Your task to perform on an android device: What's the weather going to be tomorrow? Image 0: 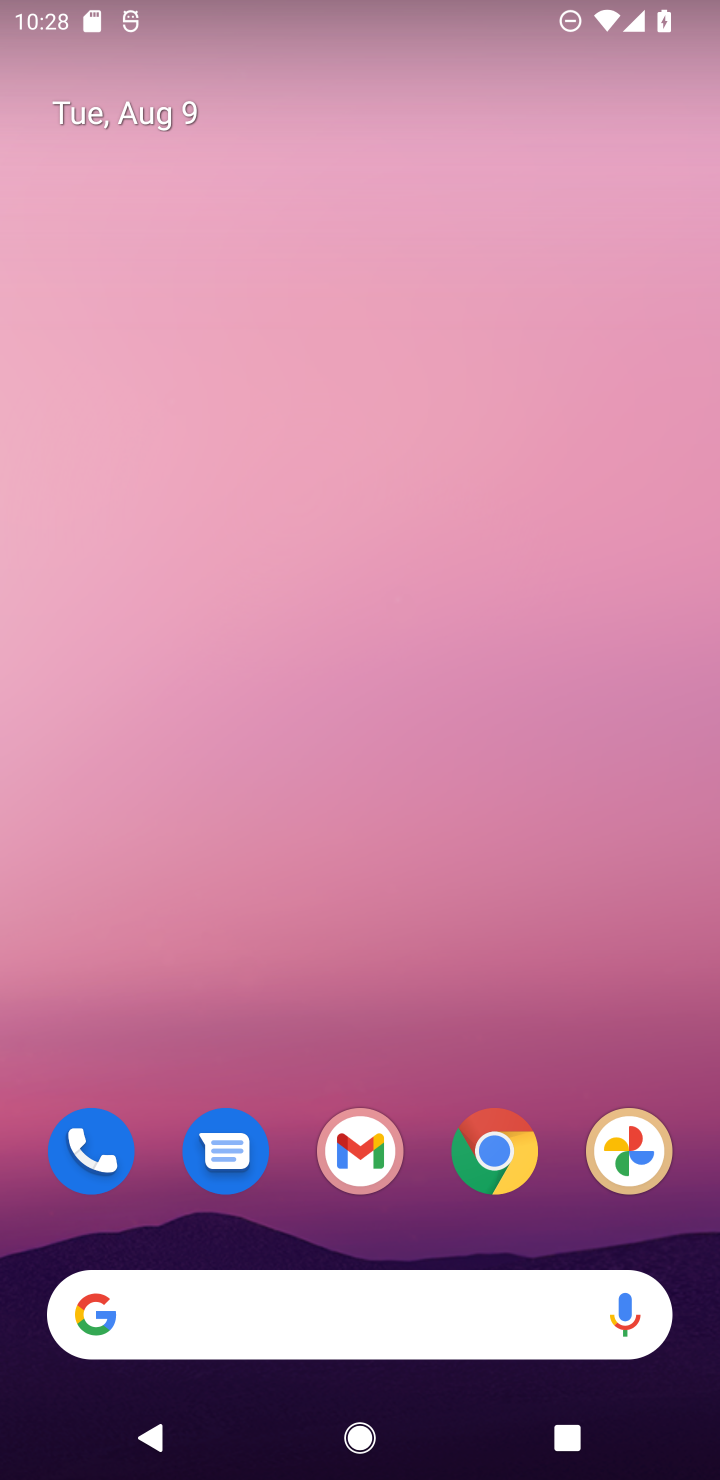
Step 0: click (355, 1313)
Your task to perform on an android device: What's the weather going to be tomorrow? Image 1: 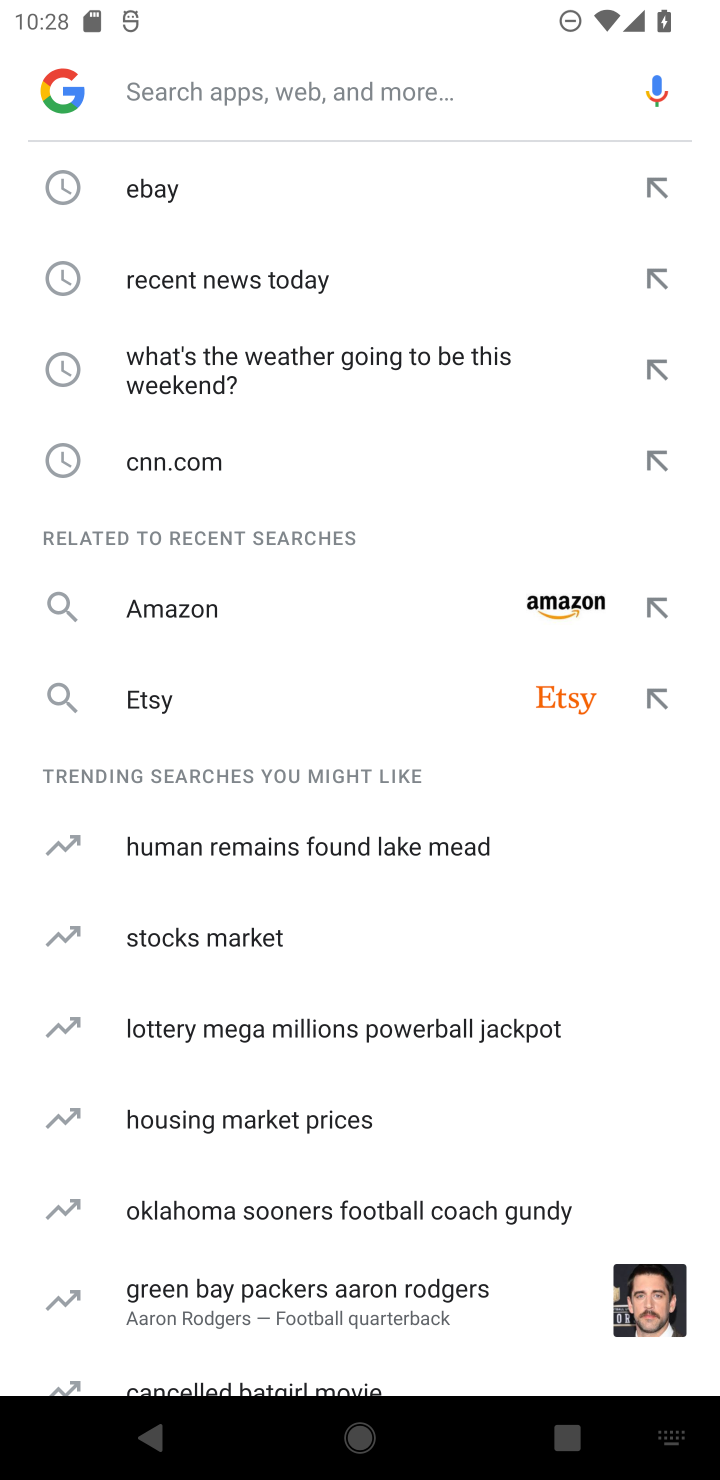
Step 1: click (196, 359)
Your task to perform on an android device: What's the weather going to be tomorrow? Image 2: 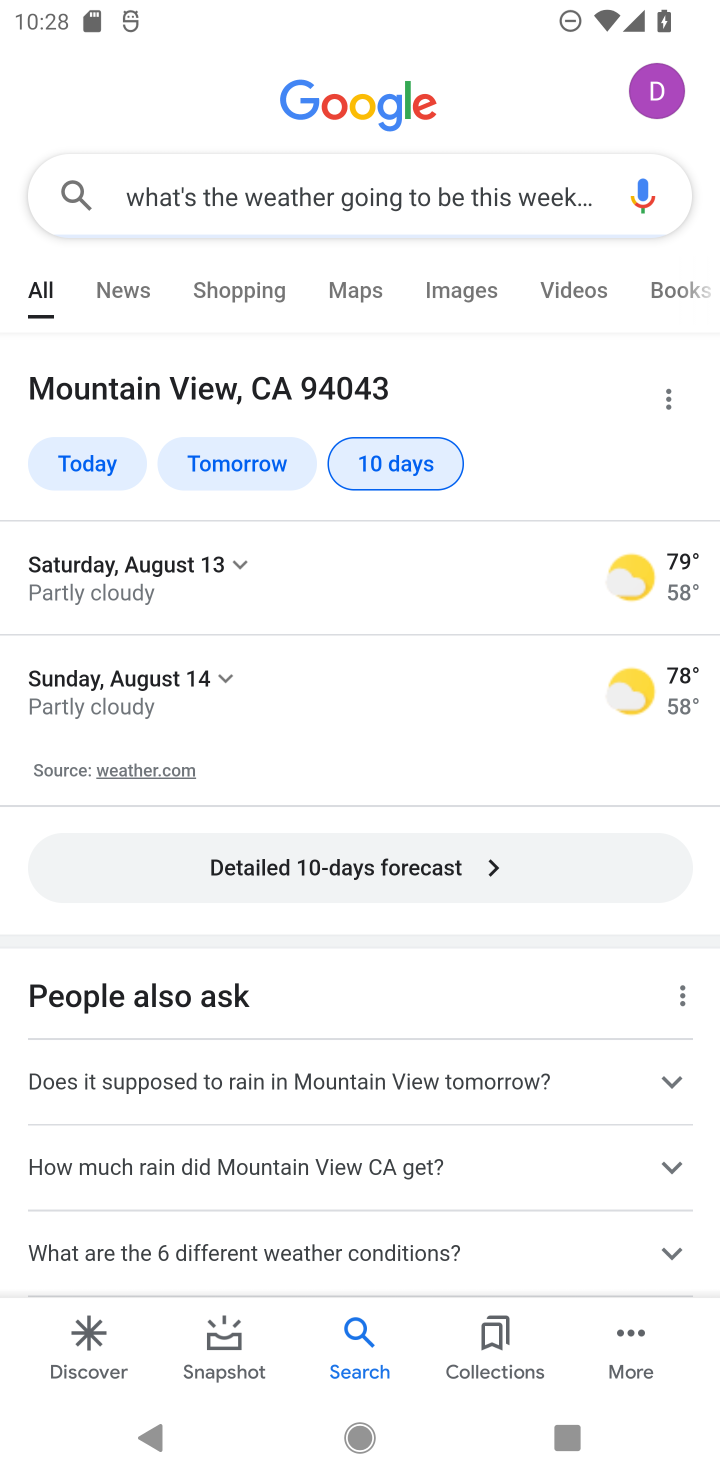
Step 2: click (554, 196)
Your task to perform on an android device: What's the weather going to be tomorrow? Image 3: 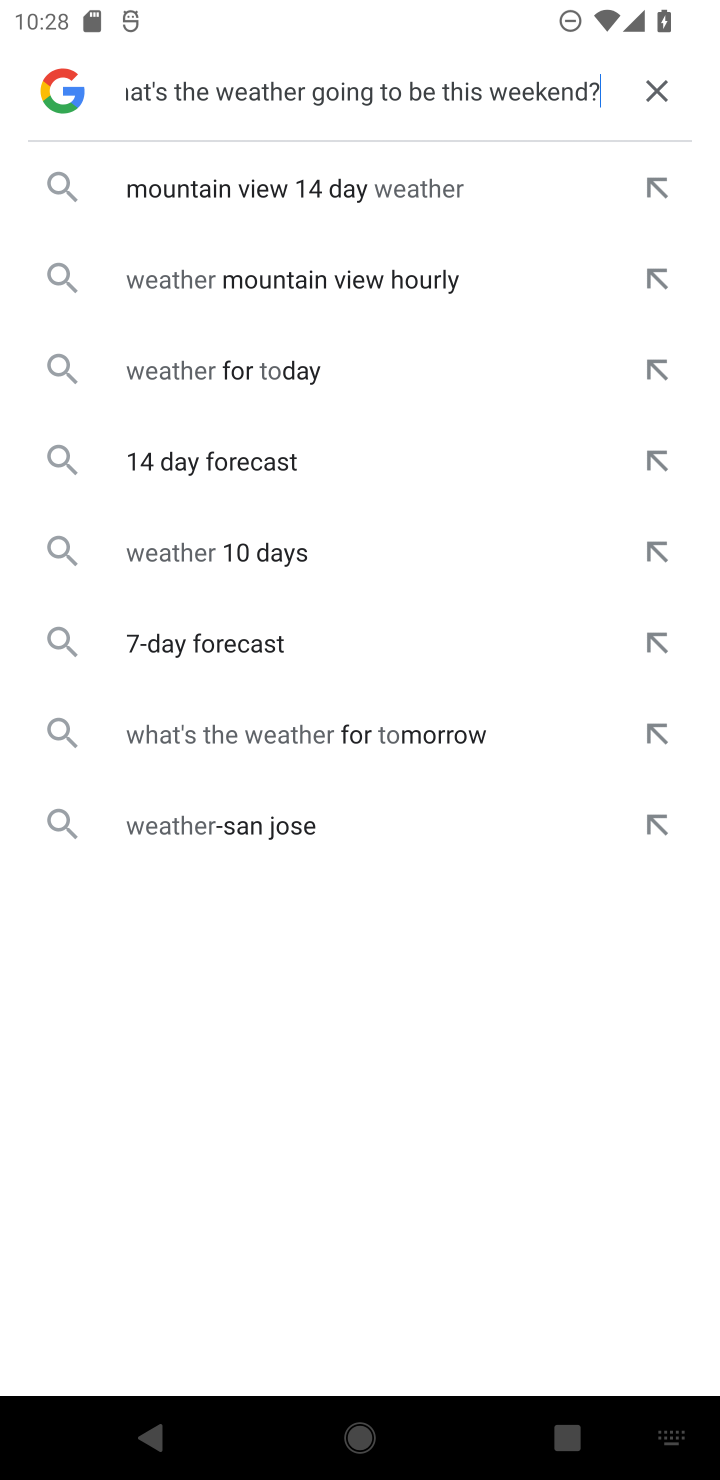
Step 3: click (610, 93)
Your task to perform on an android device: What's the weather going to be tomorrow? Image 4: 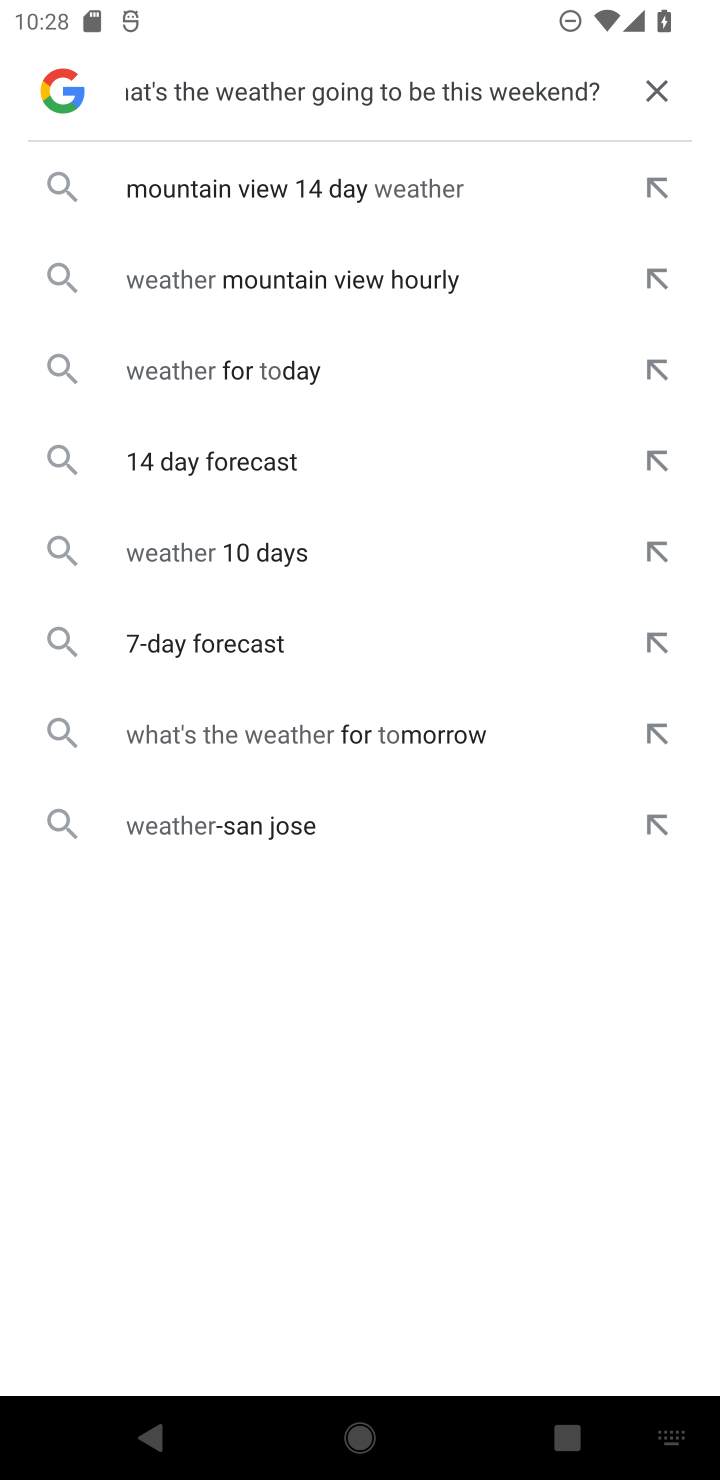
Step 4: drag from (610, 93) to (486, 94)
Your task to perform on an android device: What's the weather going to be tomorrow? Image 5: 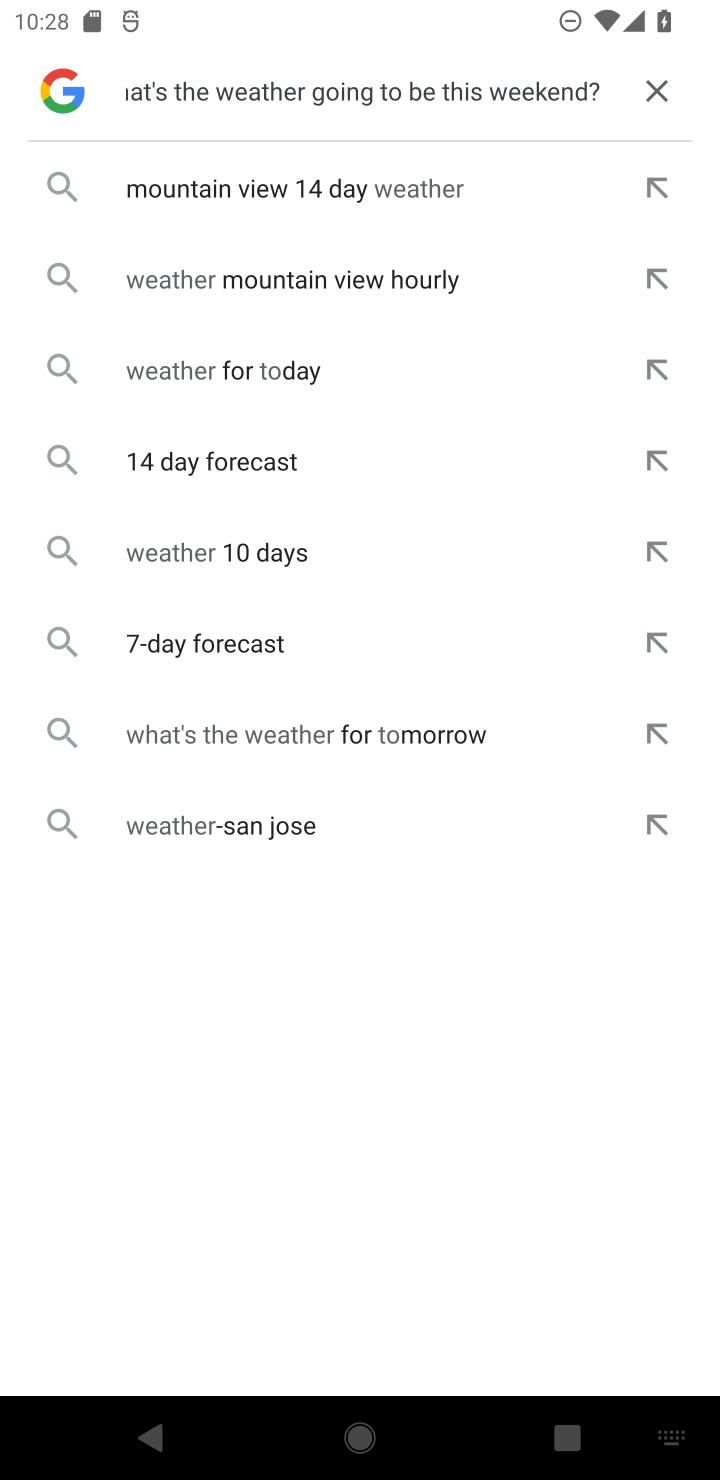
Step 5: click (425, 84)
Your task to perform on an android device: What's the weather going to be tomorrow? Image 6: 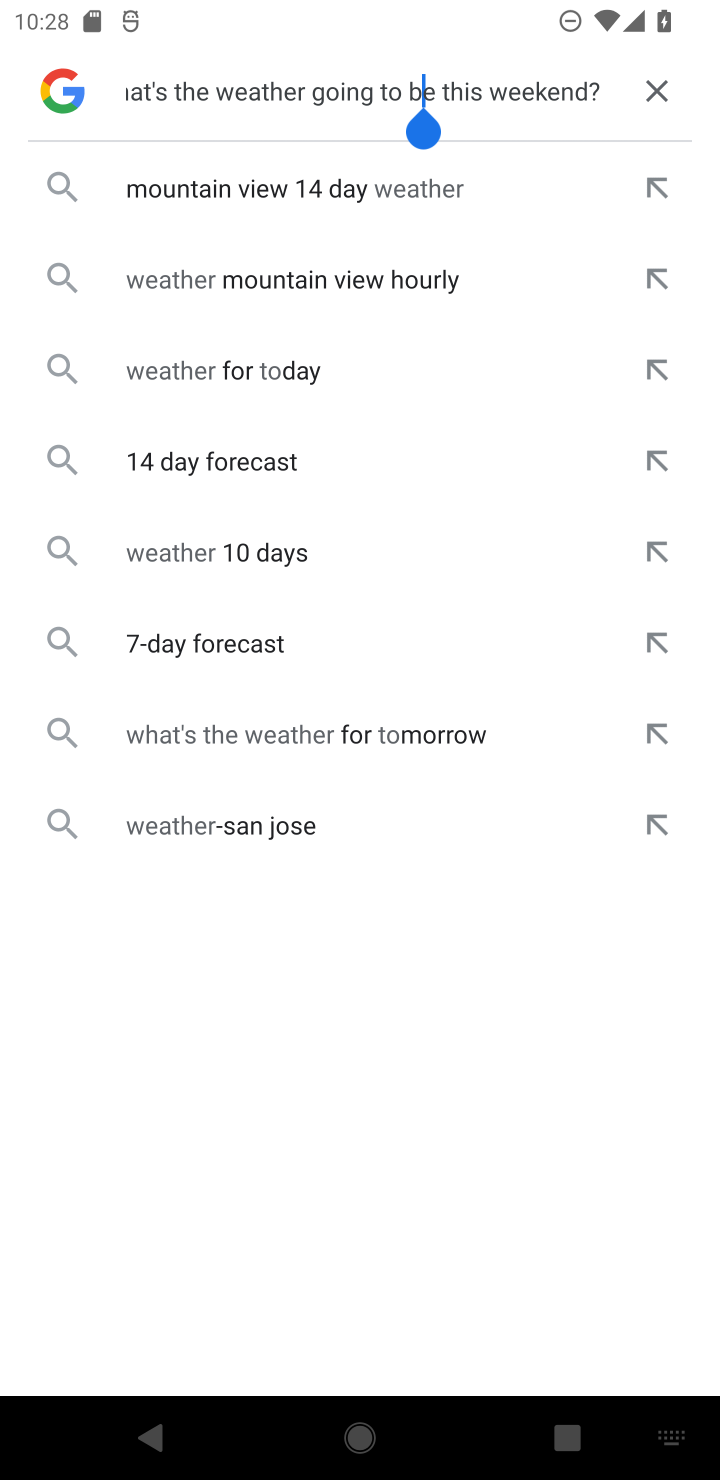
Step 6: click (602, 89)
Your task to perform on an android device: What's the weather going to be tomorrow? Image 7: 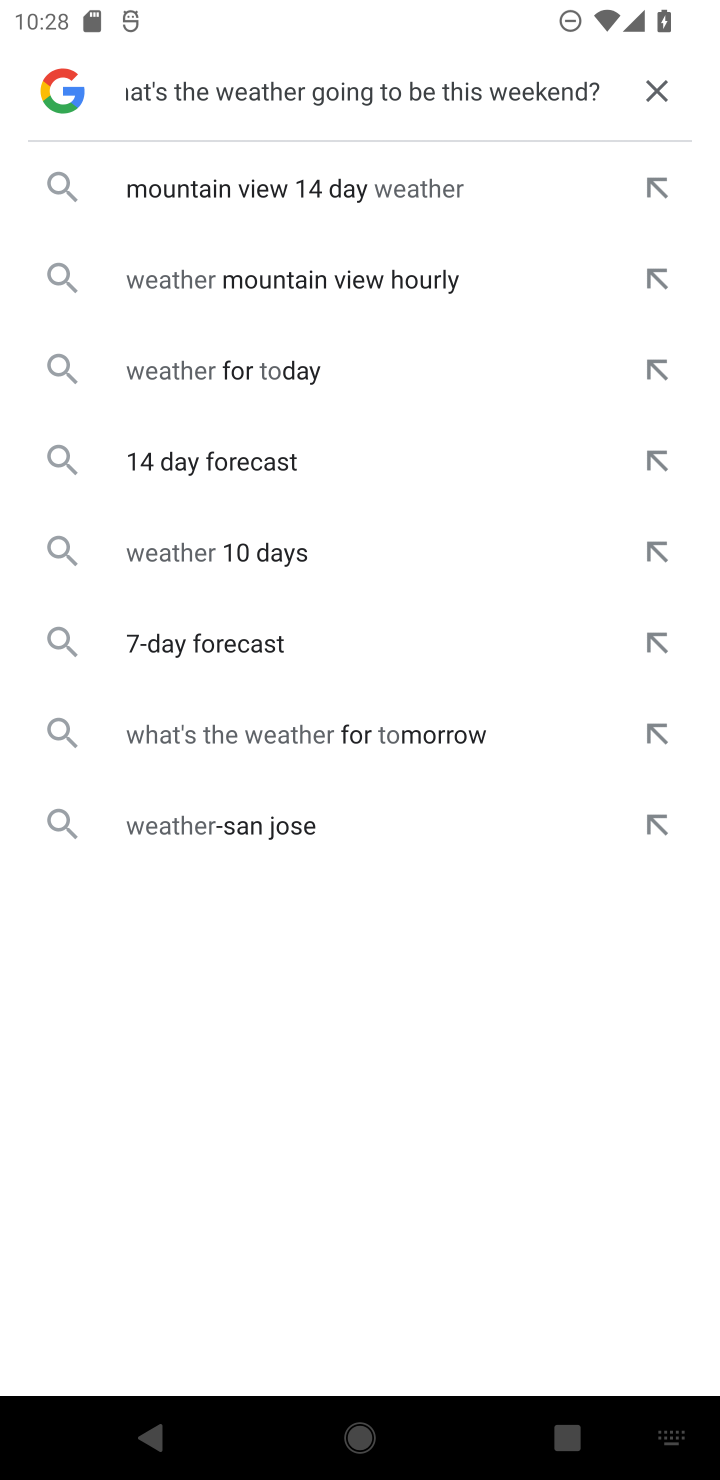
Step 7: click (602, 89)
Your task to perform on an android device: What's the weather going to be tomorrow? Image 8: 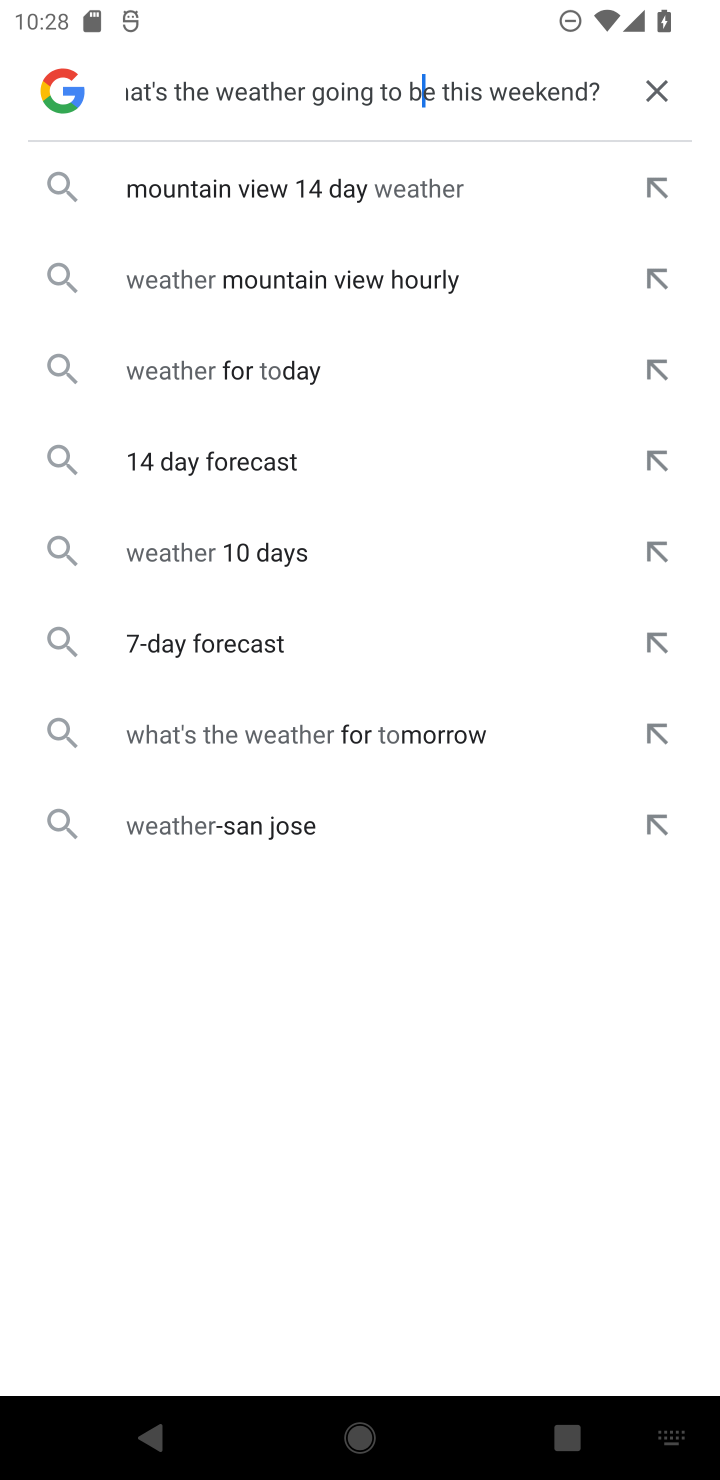
Step 8: click (602, 89)
Your task to perform on an android device: What's the weather going to be tomorrow? Image 9: 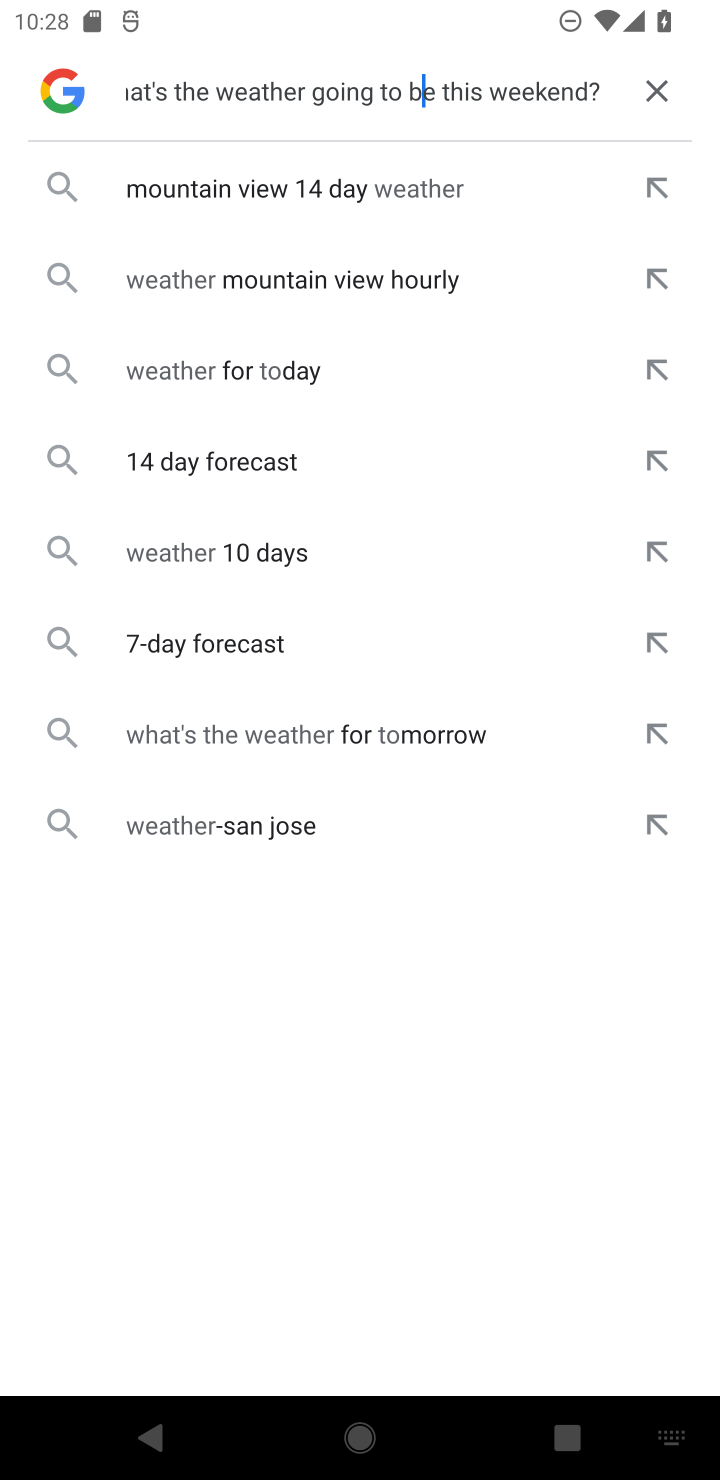
Step 9: click (591, 89)
Your task to perform on an android device: What's the weather going to be tomorrow? Image 10: 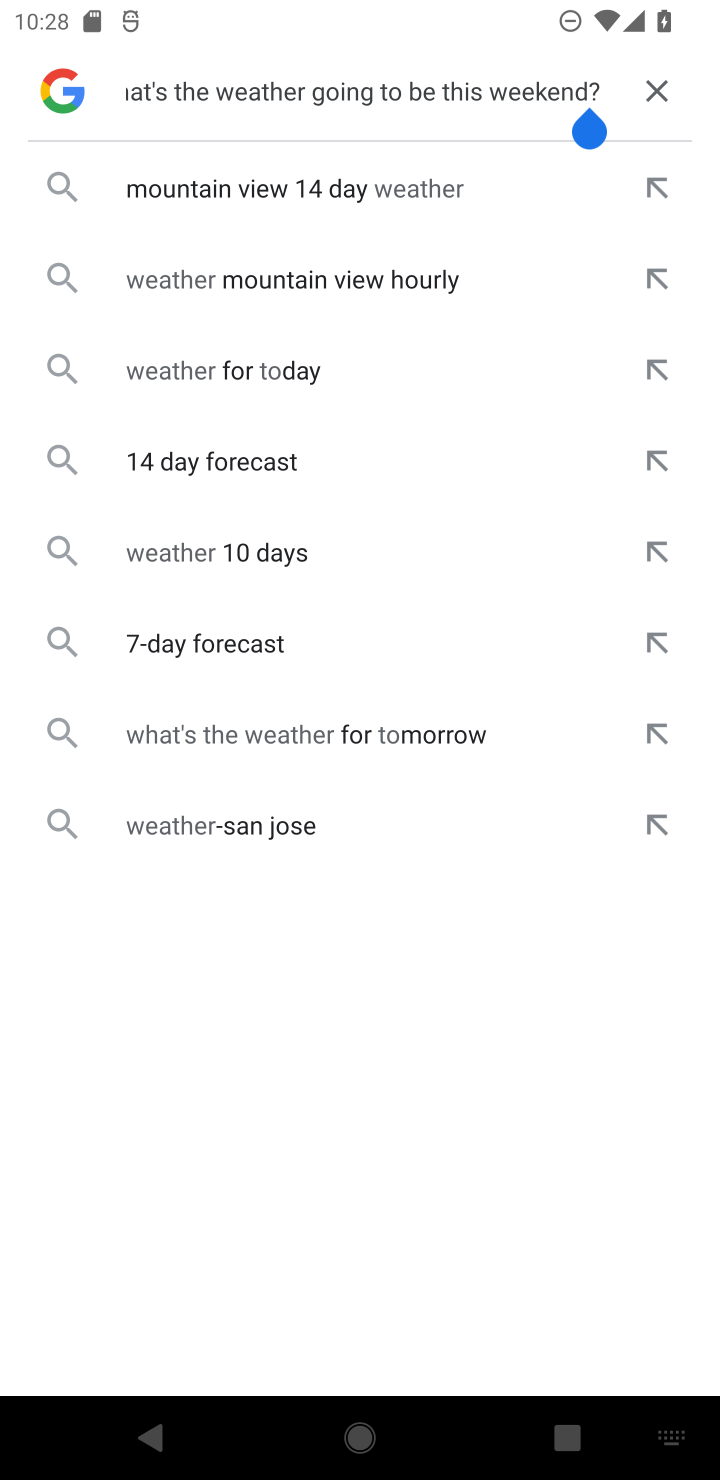
Step 10: click (591, 89)
Your task to perform on an android device: What's the weather going to be tomorrow? Image 11: 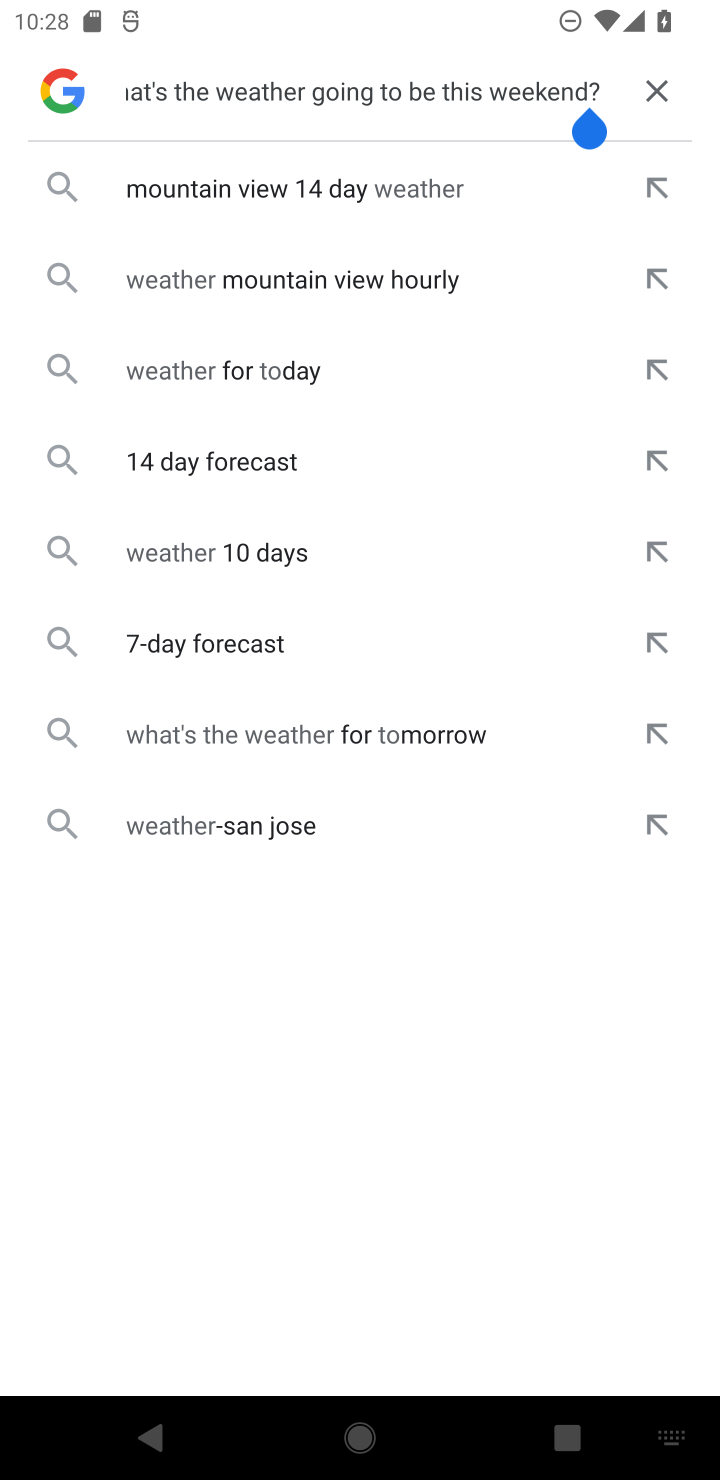
Step 11: press back button
Your task to perform on an android device: What's the weather going to be tomorrow? Image 12: 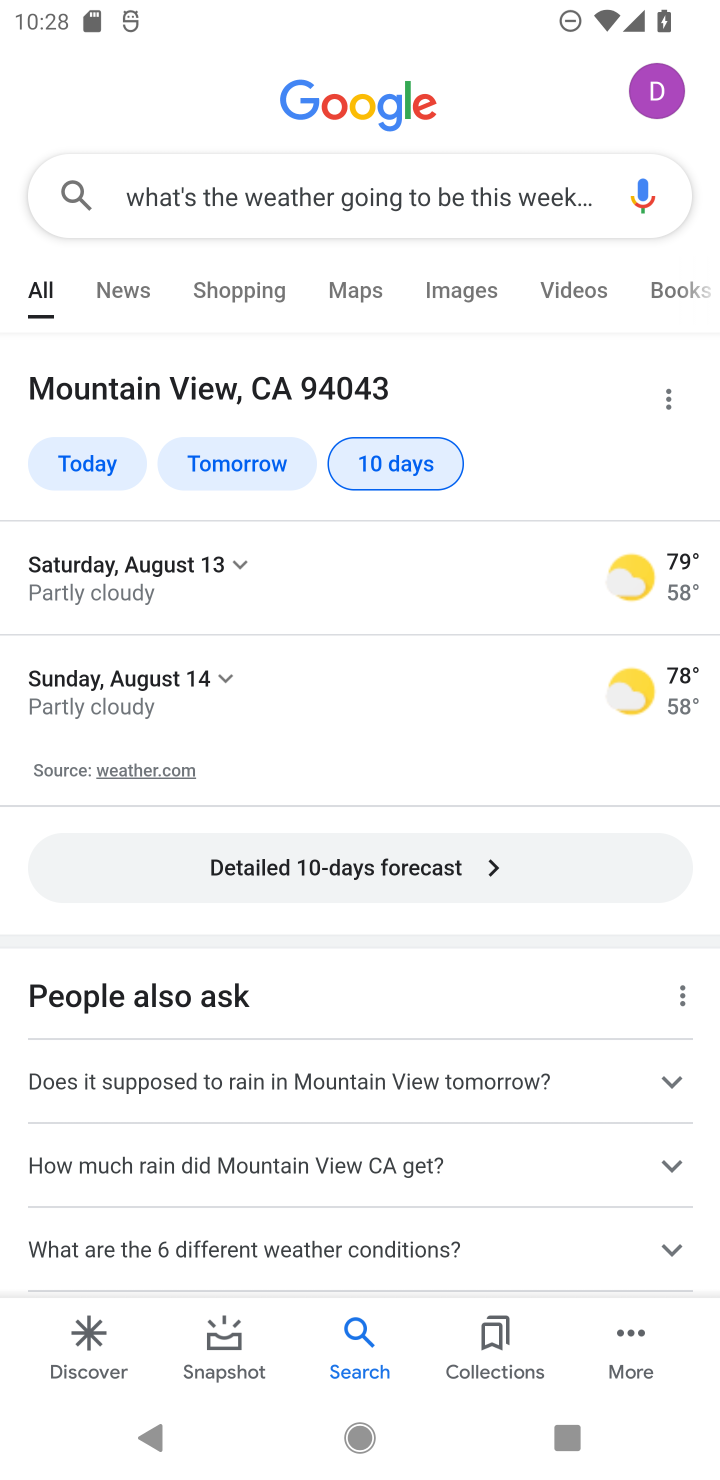
Step 12: click (549, 192)
Your task to perform on an android device: What's the weather going to be tomorrow? Image 13: 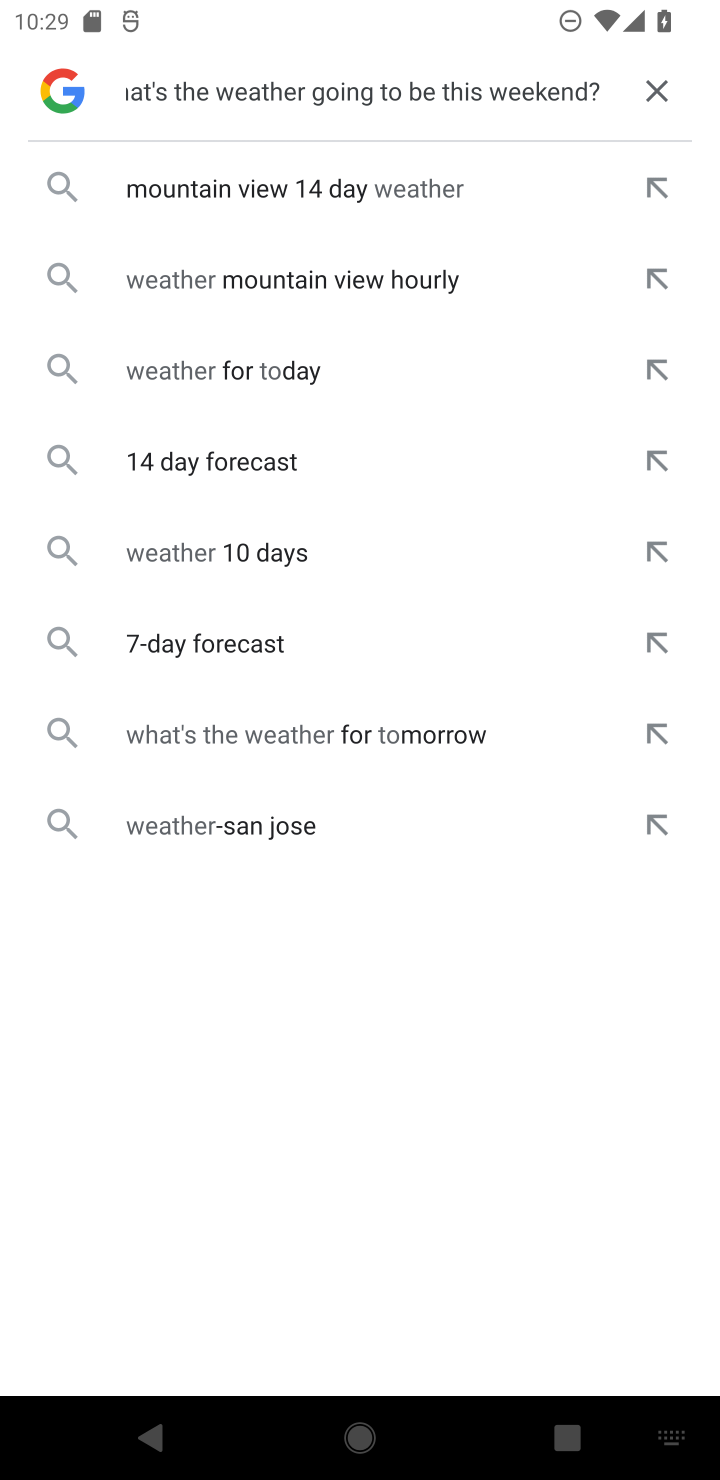
Step 13: click (496, 733)
Your task to perform on an android device: What's the weather going to be tomorrow? Image 14: 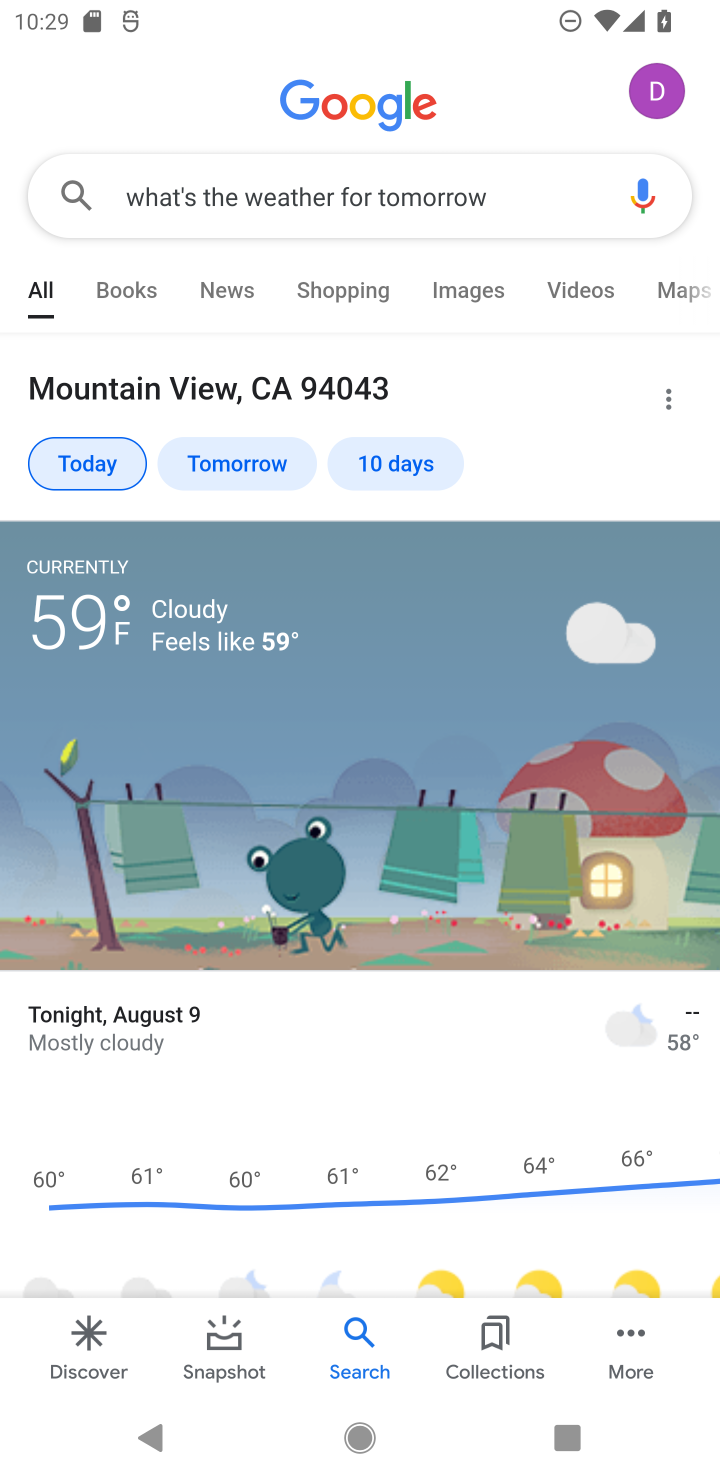
Step 14: task complete